Your task to perform on an android device: Search for Italian restaurants on Maps Image 0: 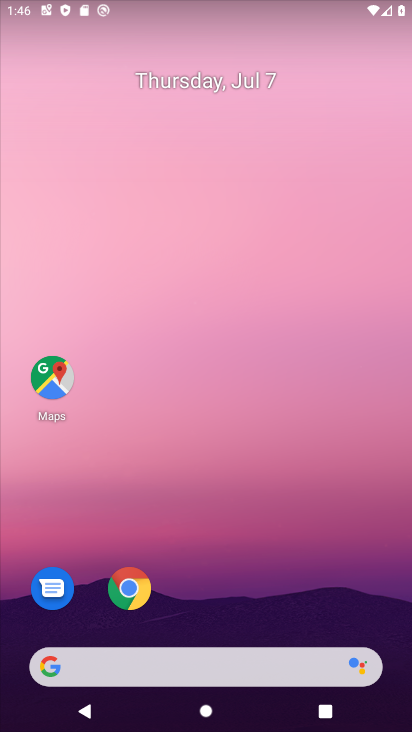
Step 0: click (44, 372)
Your task to perform on an android device: Search for Italian restaurants on Maps Image 1: 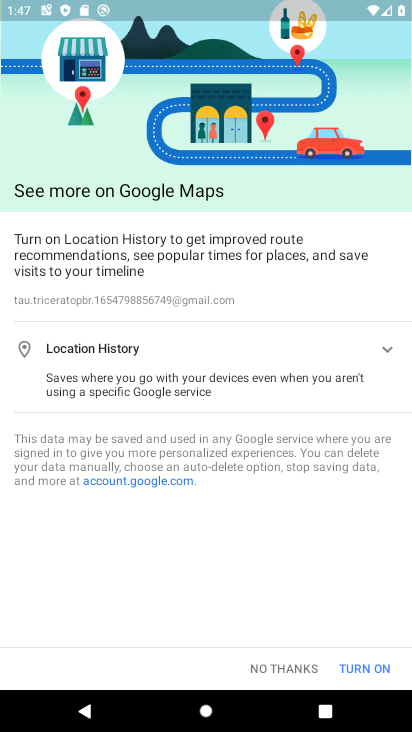
Step 1: click (288, 666)
Your task to perform on an android device: Search for Italian restaurants on Maps Image 2: 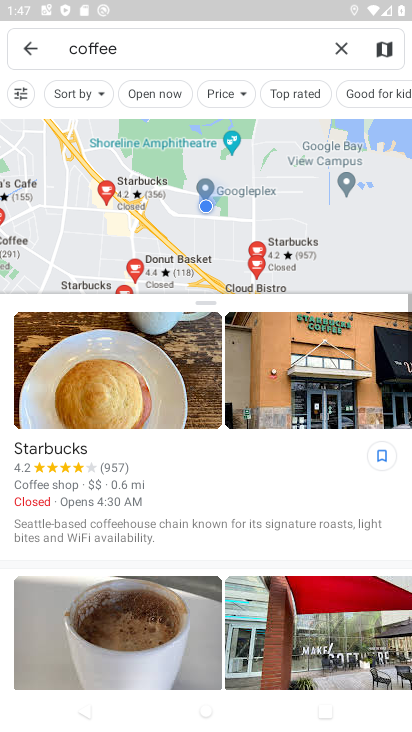
Step 2: click (349, 57)
Your task to perform on an android device: Search for Italian restaurants on Maps Image 3: 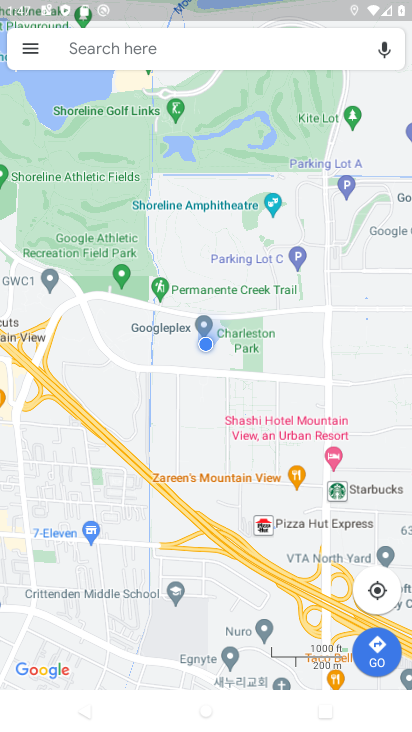
Step 3: click (160, 43)
Your task to perform on an android device: Search for Italian restaurants on Maps Image 4: 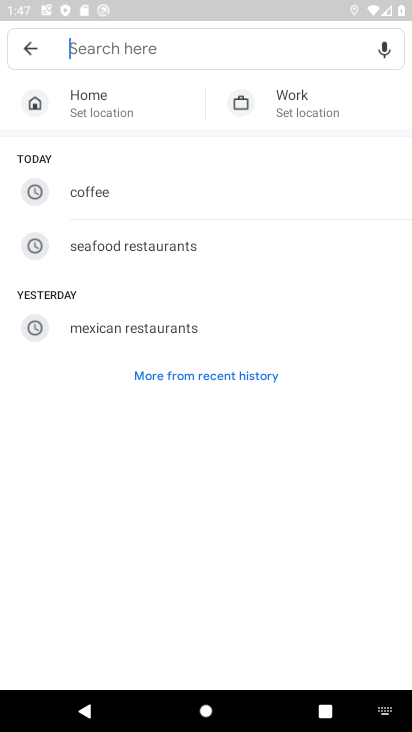
Step 4: type "italian restaurants"
Your task to perform on an android device: Search for Italian restaurants on Maps Image 5: 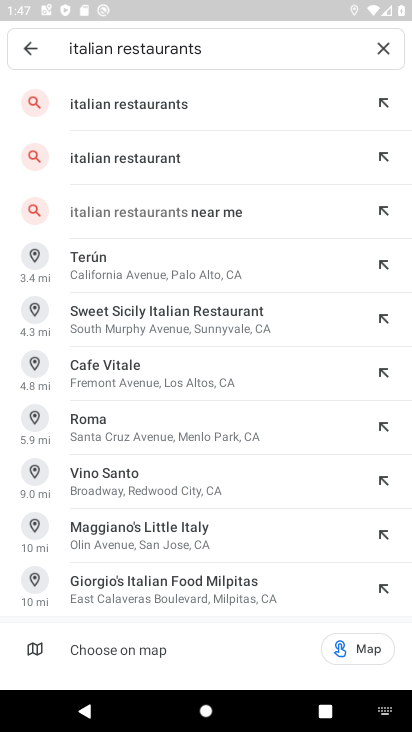
Step 5: click (188, 108)
Your task to perform on an android device: Search for Italian restaurants on Maps Image 6: 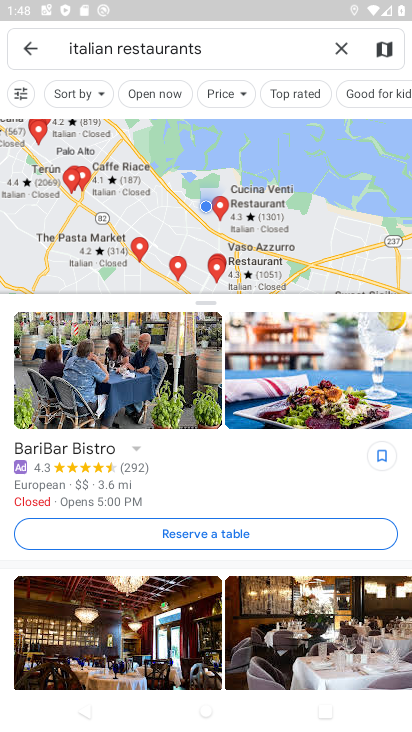
Step 6: task complete